Your task to perform on an android device: Open Chrome and go to the settings page Image 0: 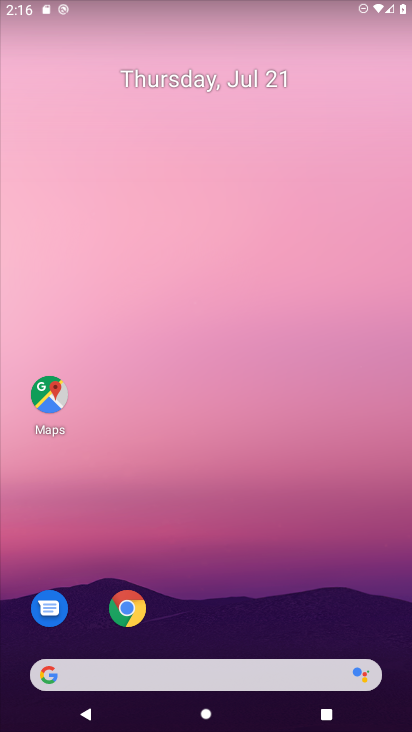
Step 0: click (137, 613)
Your task to perform on an android device: Open Chrome and go to the settings page Image 1: 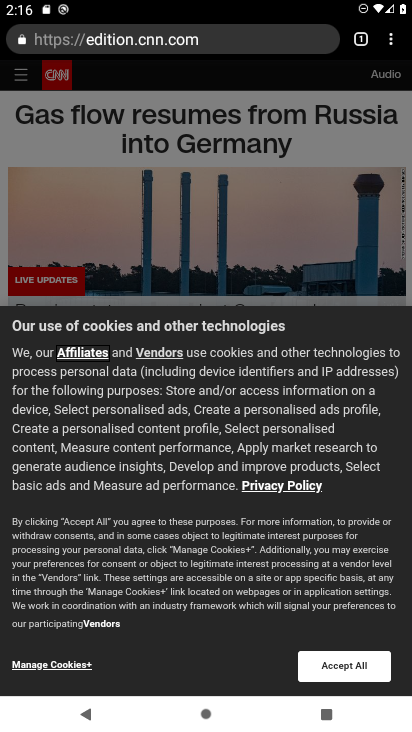
Step 1: click (383, 44)
Your task to perform on an android device: Open Chrome and go to the settings page Image 2: 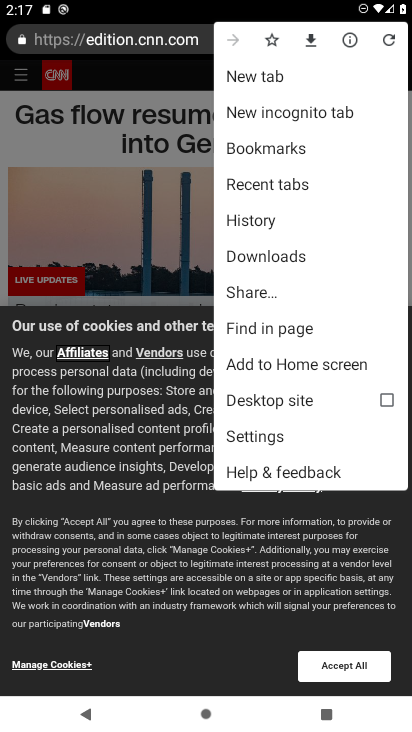
Step 2: click (281, 436)
Your task to perform on an android device: Open Chrome and go to the settings page Image 3: 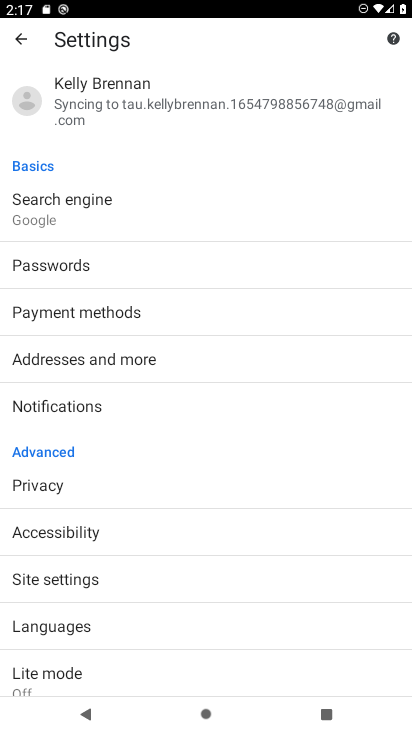
Step 3: task complete